Your task to perform on an android device: Go to Yahoo.com Image 0: 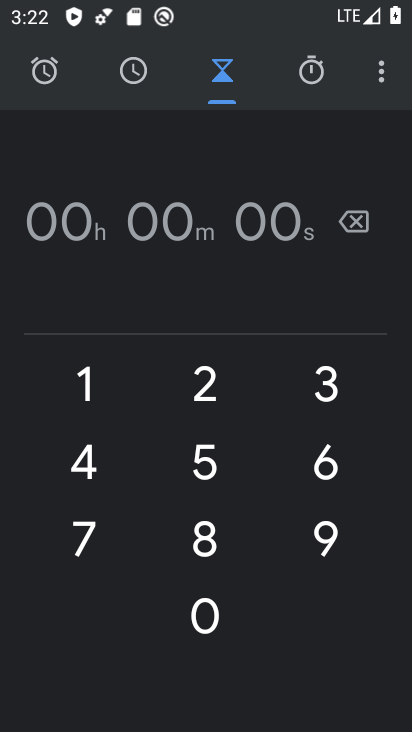
Step 0: press home button
Your task to perform on an android device: Go to Yahoo.com Image 1: 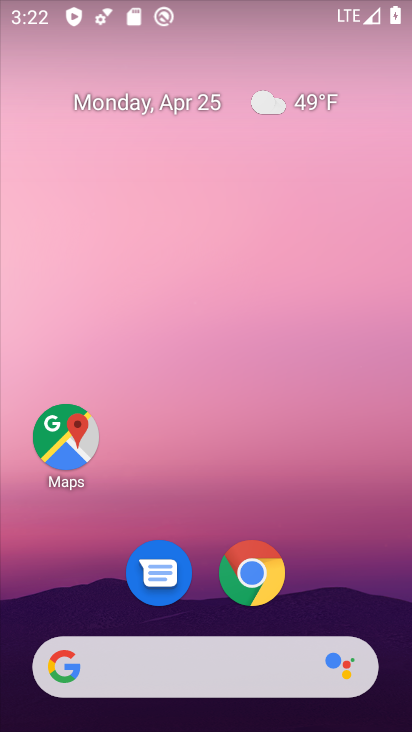
Step 1: click (232, 580)
Your task to perform on an android device: Go to Yahoo.com Image 2: 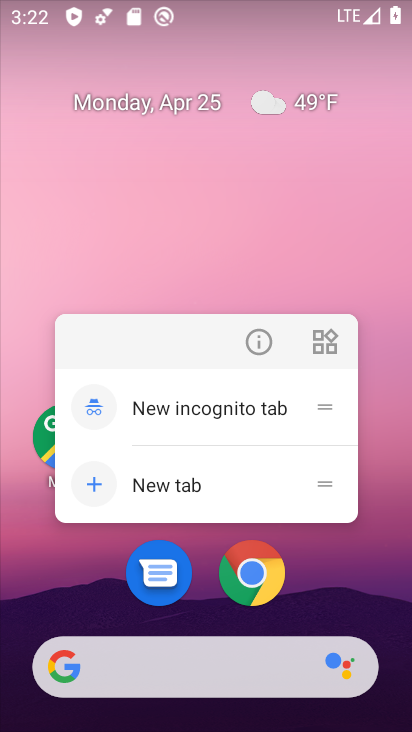
Step 2: click (261, 572)
Your task to perform on an android device: Go to Yahoo.com Image 3: 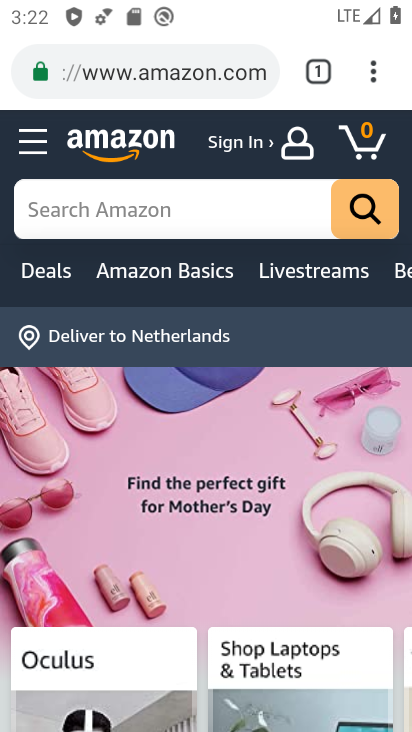
Step 3: click (309, 70)
Your task to perform on an android device: Go to Yahoo.com Image 4: 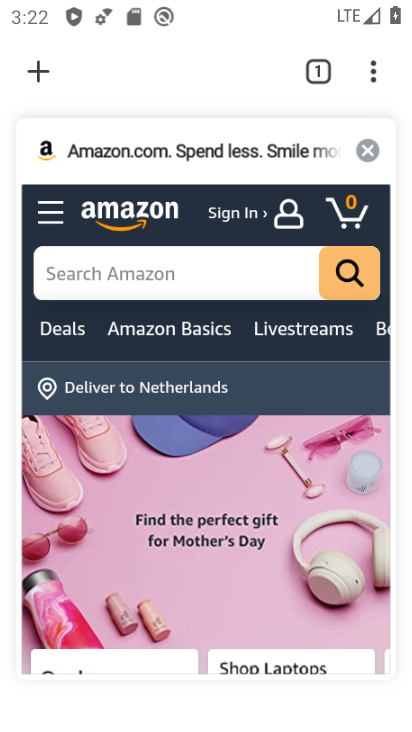
Step 4: click (42, 61)
Your task to perform on an android device: Go to Yahoo.com Image 5: 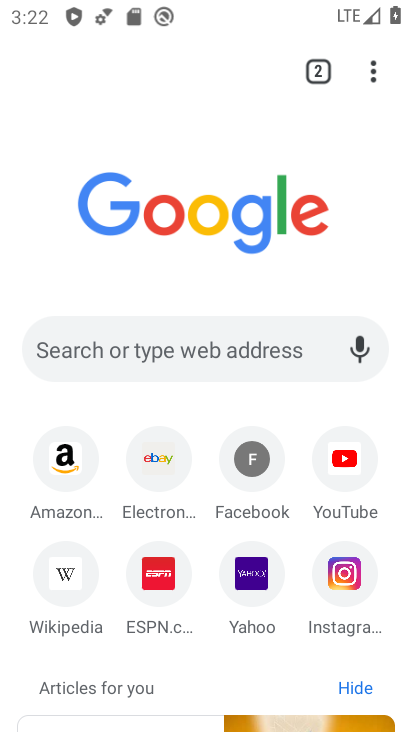
Step 5: click (266, 598)
Your task to perform on an android device: Go to Yahoo.com Image 6: 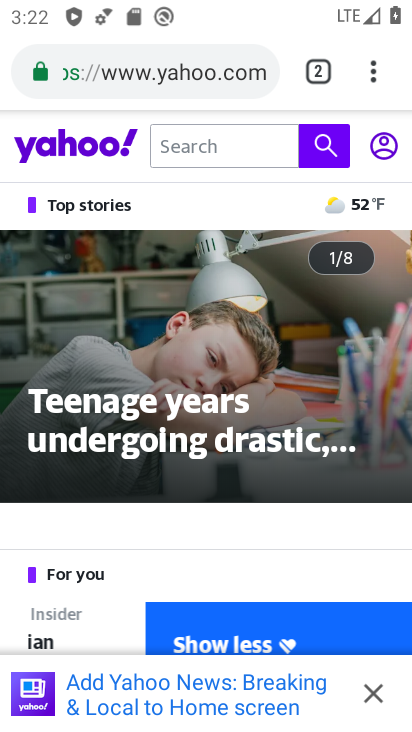
Step 6: task complete